Your task to perform on an android device: find photos in the google photos app Image 0: 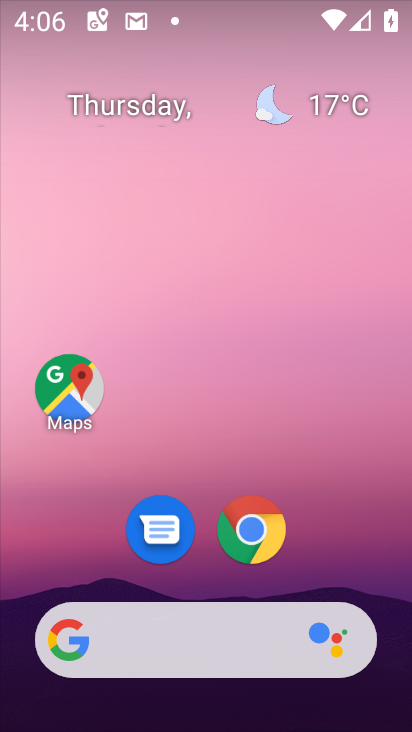
Step 0: drag from (160, 596) to (160, 102)
Your task to perform on an android device: find photos in the google photos app Image 1: 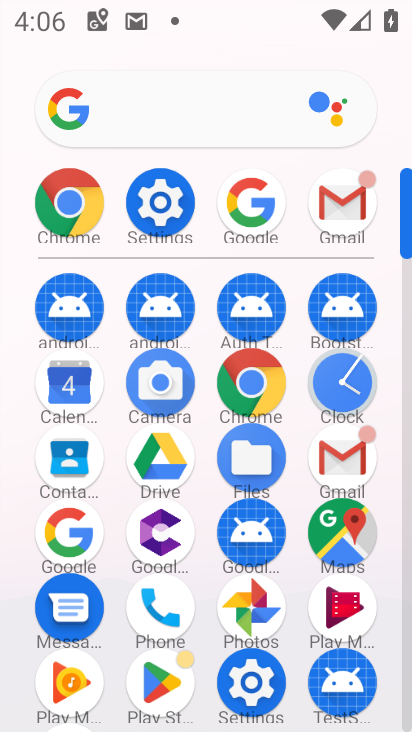
Step 1: click (242, 611)
Your task to perform on an android device: find photos in the google photos app Image 2: 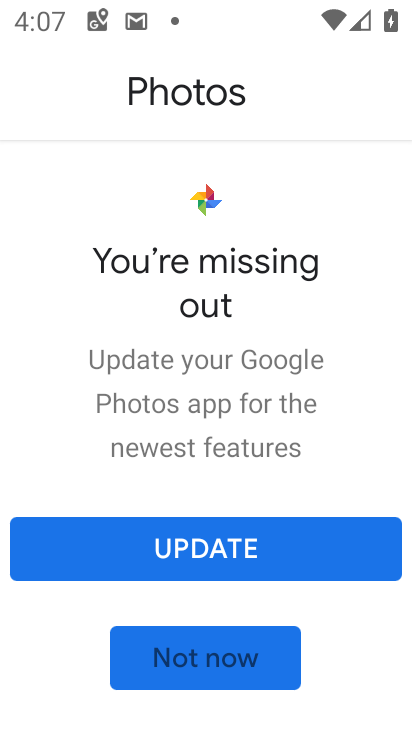
Step 2: click (192, 556)
Your task to perform on an android device: find photos in the google photos app Image 3: 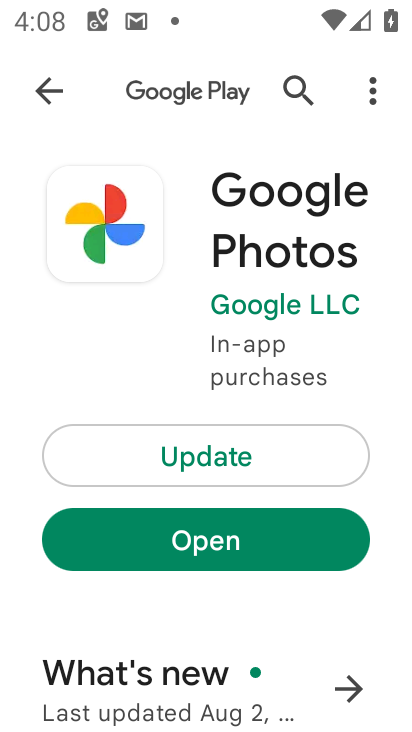
Step 3: click (196, 539)
Your task to perform on an android device: find photos in the google photos app Image 4: 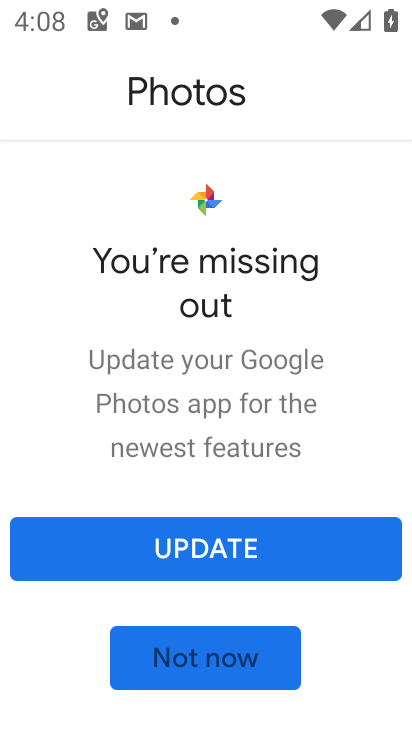
Step 4: click (154, 555)
Your task to perform on an android device: find photos in the google photos app Image 5: 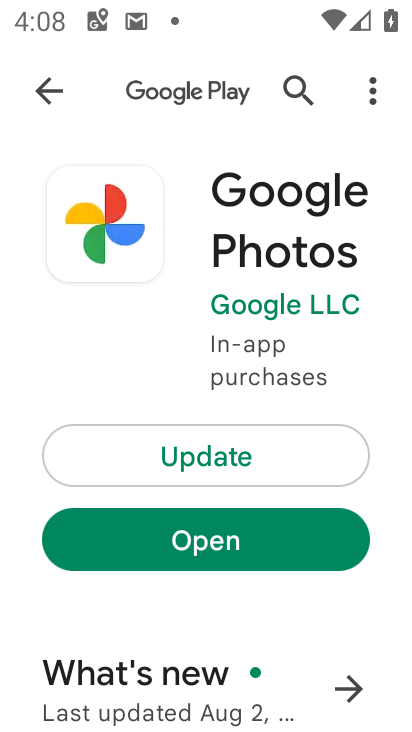
Step 5: drag from (124, 463) to (260, 463)
Your task to perform on an android device: find photos in the google photos app Image 6: 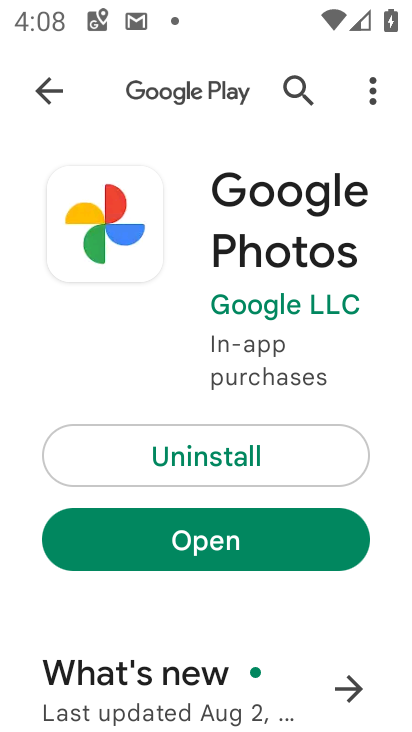
Step 6: click (210, 542)
Your task to perform on an android device: find photos in the google photos app Image 7: 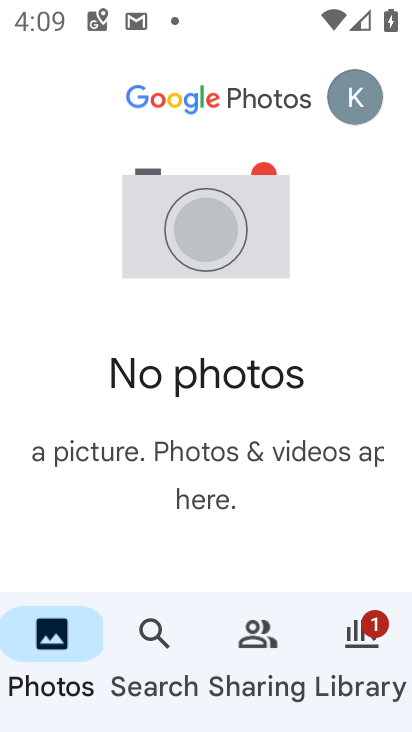
Step 7: task complete